Your task to perform on an android device: check storage Image 0: 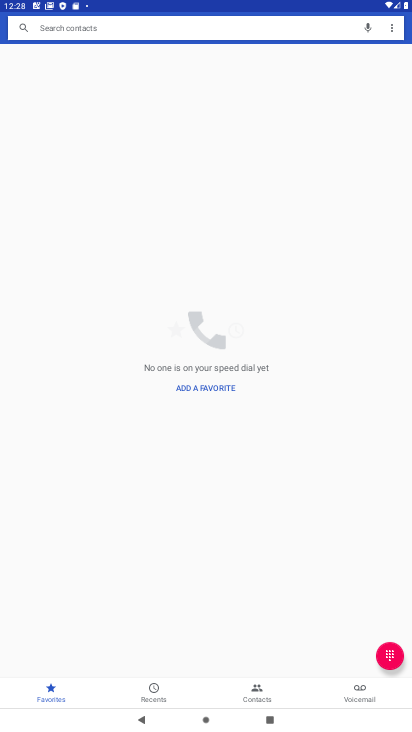
Step 0: press home button
Your task to perform on an android device: check storage Image 1: 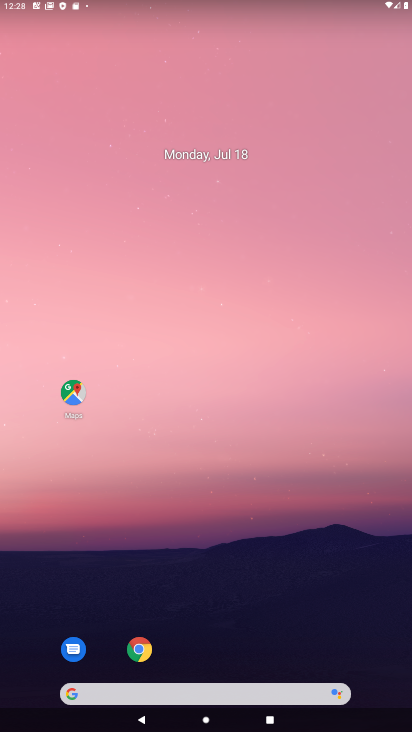
Step 1: drag from (355, 649) to (328, 131)
Your task to perform on an android device: check storage Image 2: 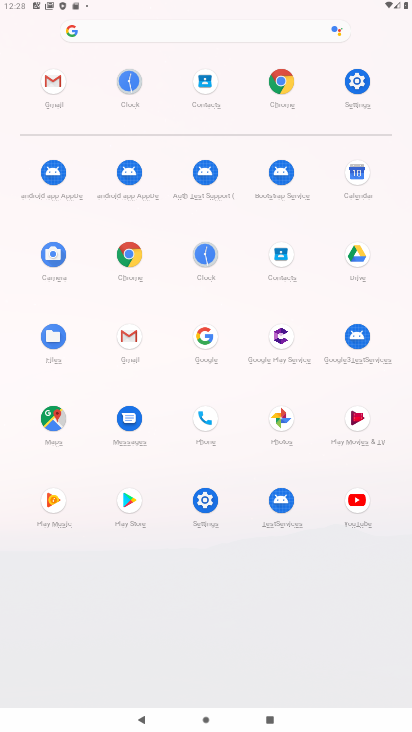
Step 2: click (202, 501)
Your task to perform on an android device: check storage Image 3: 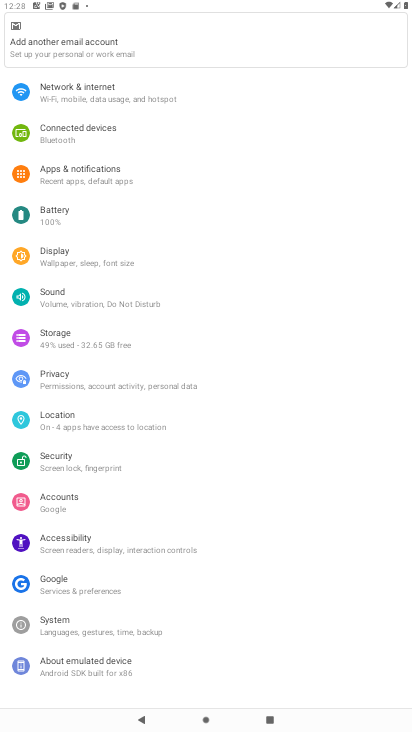
Step 3: click (53, 335)
Your task to perform on an android device: check storage Image 4: 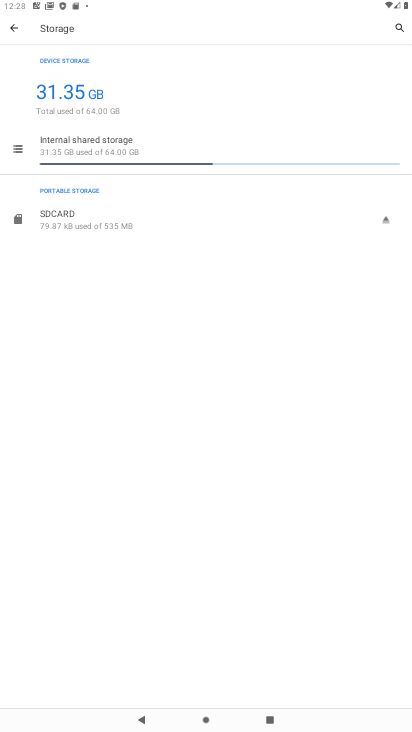
Step 4: task complete